Your task to perform on an android device: turn on the 24-hour format for clock Image 0: 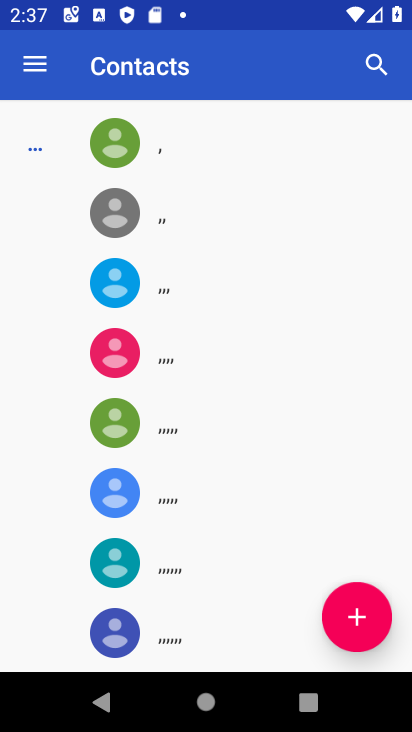
Step 0: press home button
Your task to perform on an android device: turn on the 24-hour format for clock Image 1: 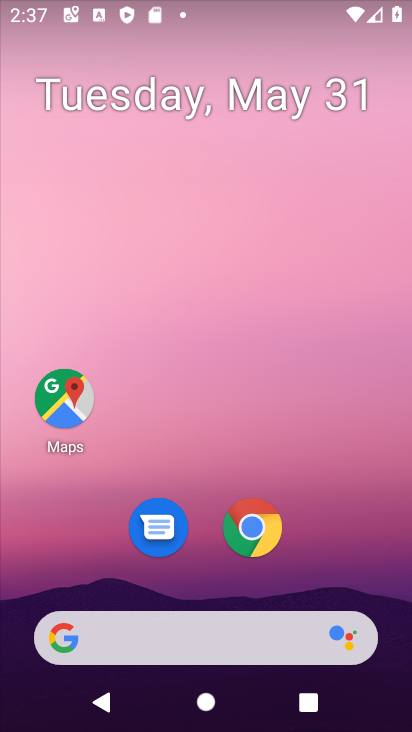
Step 1: drag from (397, 640) to (344, 127)
Your task to perform on an android device: turn on the 24-hour format for clock Image 2: 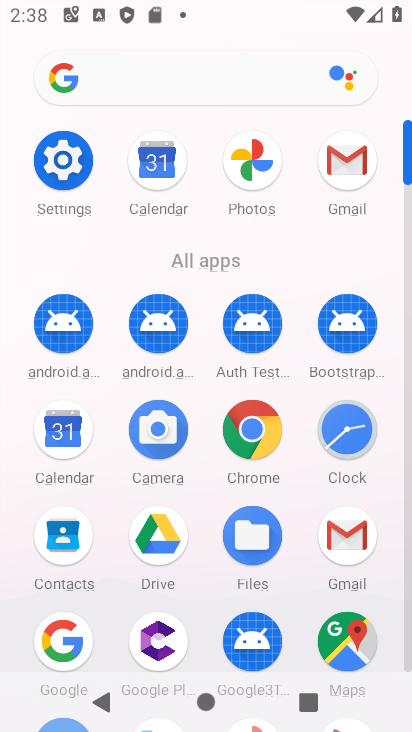
Step 2: click (406, 650)
Your task to perform on an android device: turn on the 24-hour format for clock Image 3: 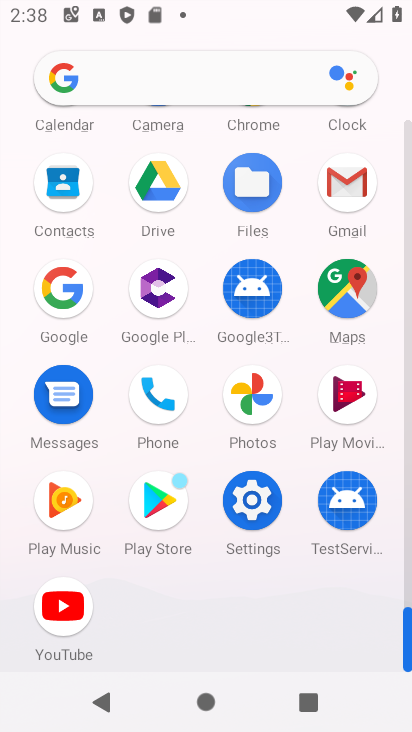
Step 3: click (406, 224)
Your task to perform on an android device: turn on the 24-hour format for clock Image 4: 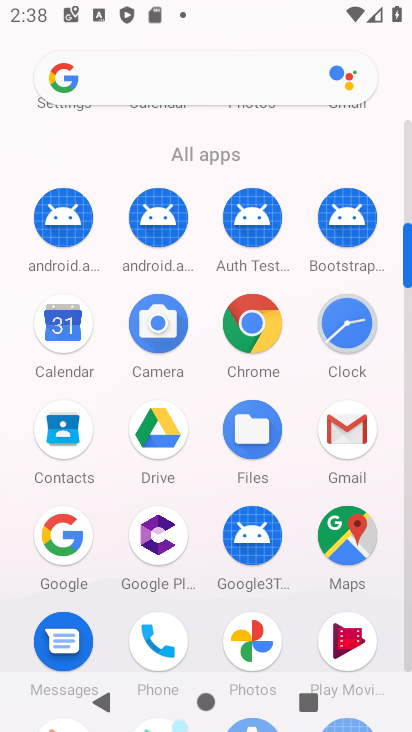
Step 4: click (349, 322)
Your task to perform on an android device: turn on the 24-hour format for clock Image 5: 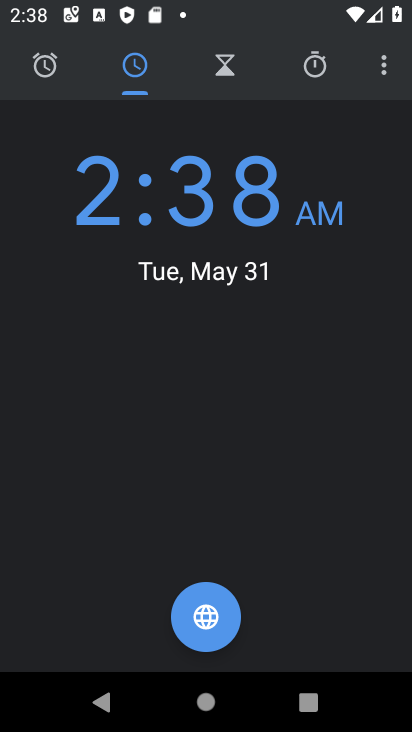
Step 5: click (381, 72)
Your task to perform on an android device: turn on the 24-hour format for clock Image 6: 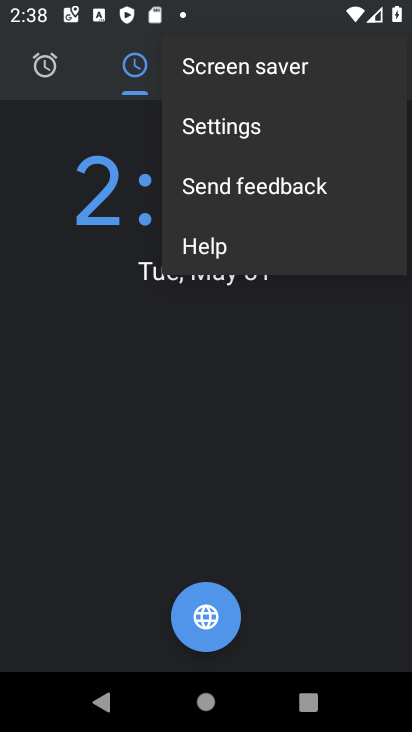
Step 6: click (226, 122)
Your task to perform on an android device: turn on the 24-hour format for clock Image 7: 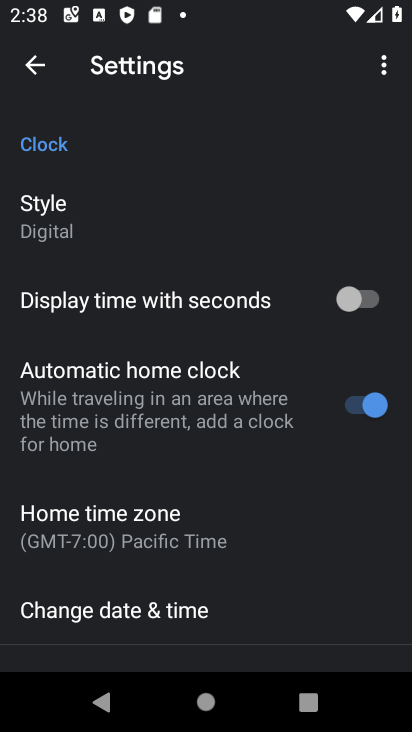
Step 7: click (182, 613)
Your task to perform on an android device: turn on the 24-hour format for clock Image 8: 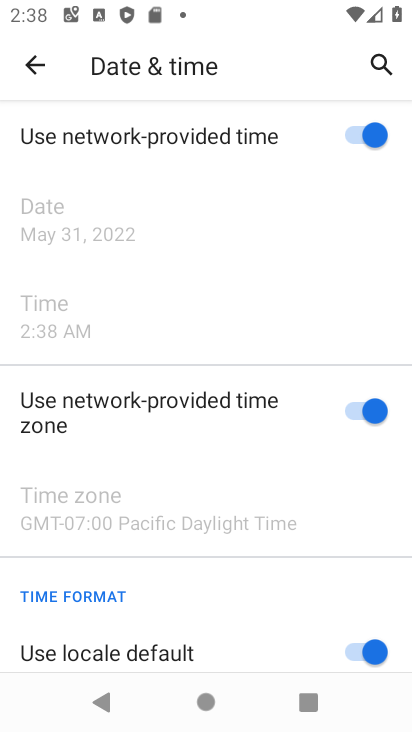
Step 8: drag from (234, 635) to (231, 185)
Your task to perform on an android device: turn on the 24-hour format for clock Image 9: 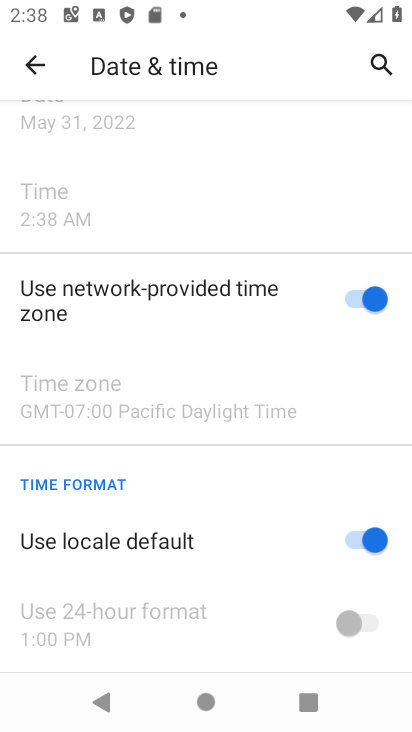
Step 9: click (355, 568)
Your task to perform on an android device: turn on the 24-hour format for clock Image 10: 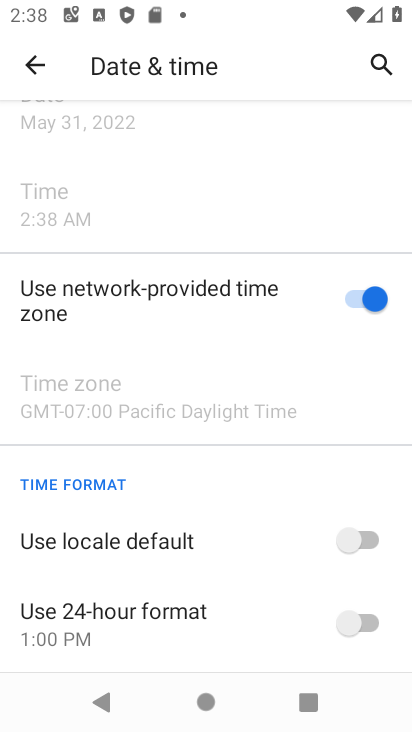
Step 10: click (370, 623)
Your task to perform on an android device: turn on the 24-hour format for clock Image 11: 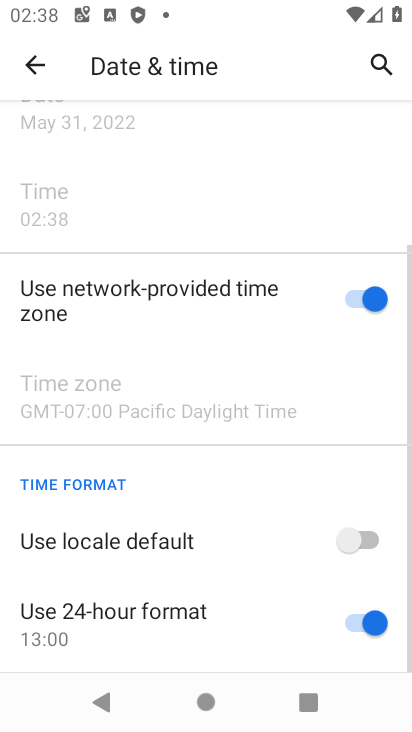
Step 11: task complete